Your task to perform on an android device: Go to eBay Image 0: 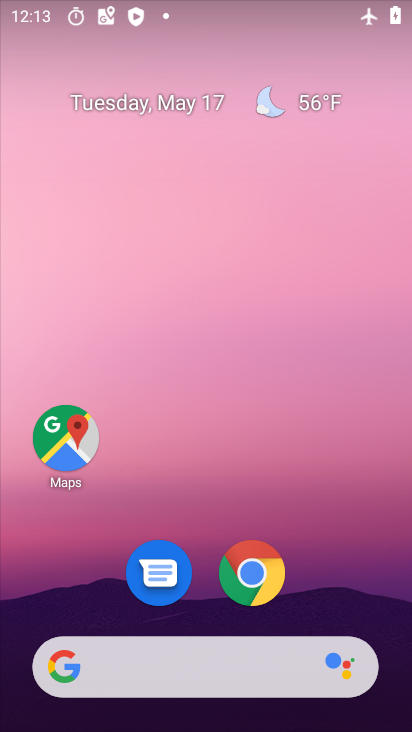
Step 0: click (255, 672)
Your task to perform on an android device: Go to eBay Image 1: 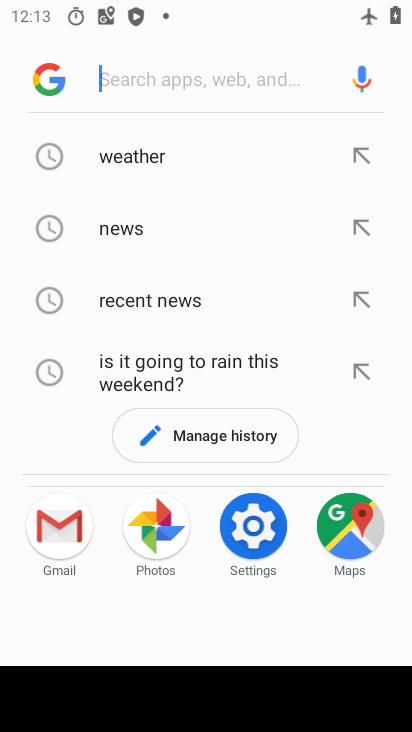
Step 1: type "ebay"
Your task to perform on an android device: Go to eBay Image 2: 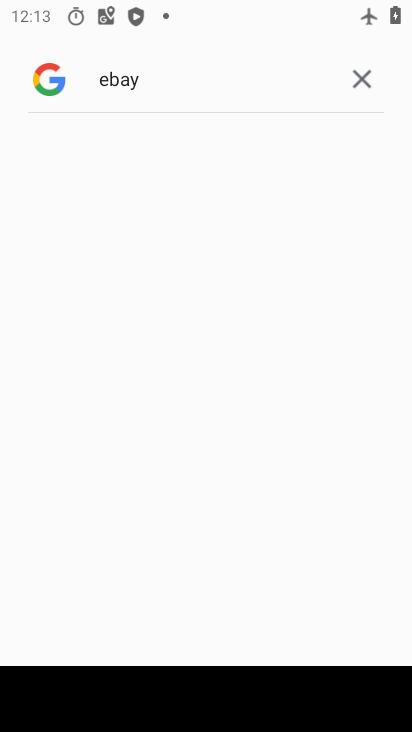
Step 2: task complete